Your task to perform on an android device: allow cookies in the chrome app Image 0: 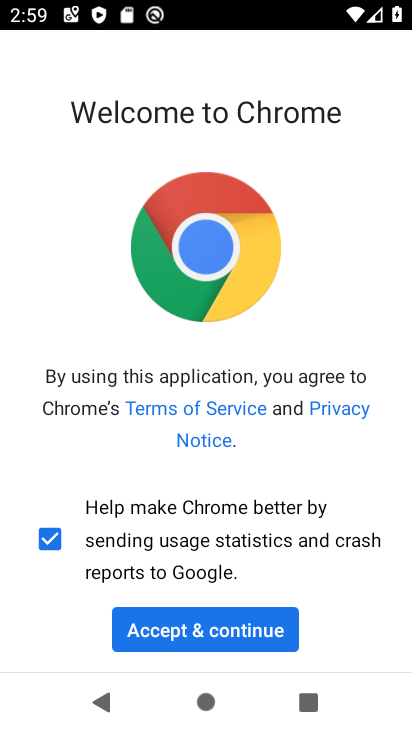
Step 0: press home button
Your task to perform on an android device: allow cookies in the chrome app Image 1: 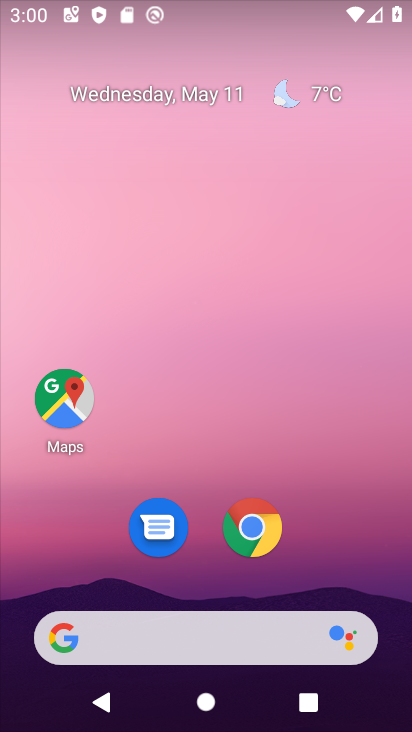
Step 1: click (269, 519)
Your task to perform on an android device: allow cookies in the chrome app Image 2: 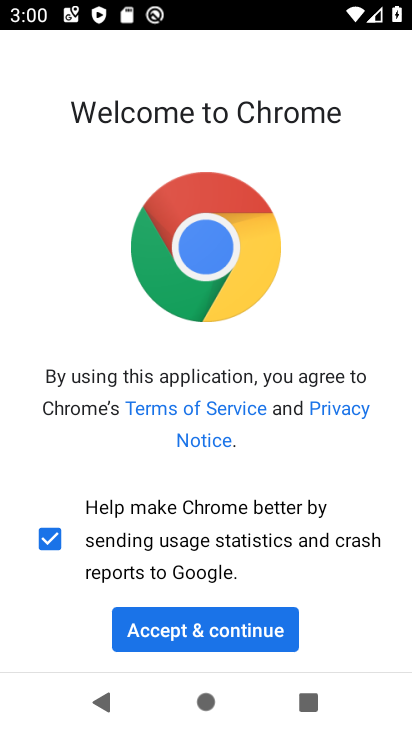
Step 2: click (215, 622)
Your task to perform on an android device: allow cookies in the chrome app Image 3: 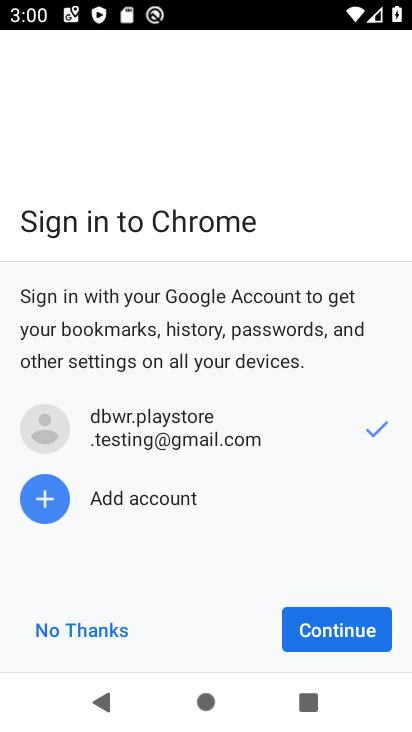
Step 3: click (103, 637)
Your task to perform on an android device: allow cookies in the chrome app Image 4: 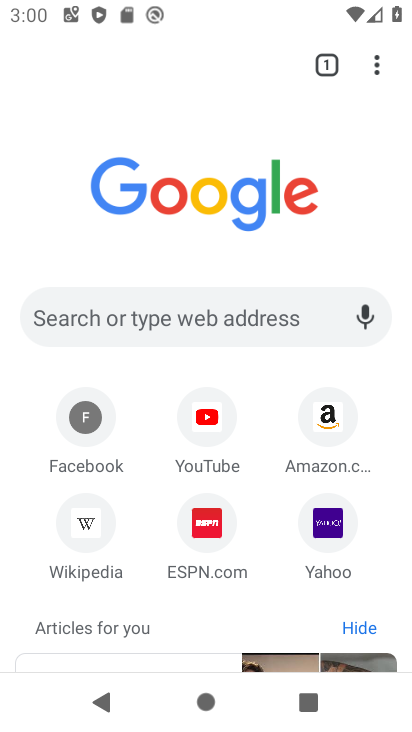
Step 4: drag from (380, 62) to (167, 548)
Your task to perform on an android device: allow cookies in the chrome app Image 5: 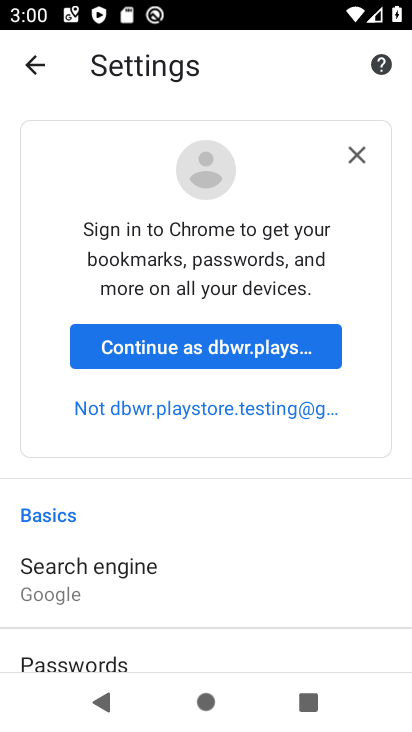
Step 5: drag from (201, 620) to (225, 221)
Your task to perform on an android device: allow cookies in the chrome app Image 6: 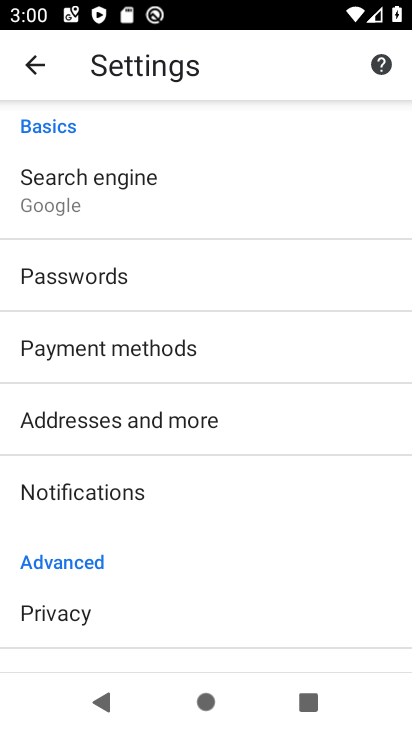
Step 6: drag from (203, 533) to (198, 185)
Your task to perform on an android device: allow cookies in the chrome app Image 7: 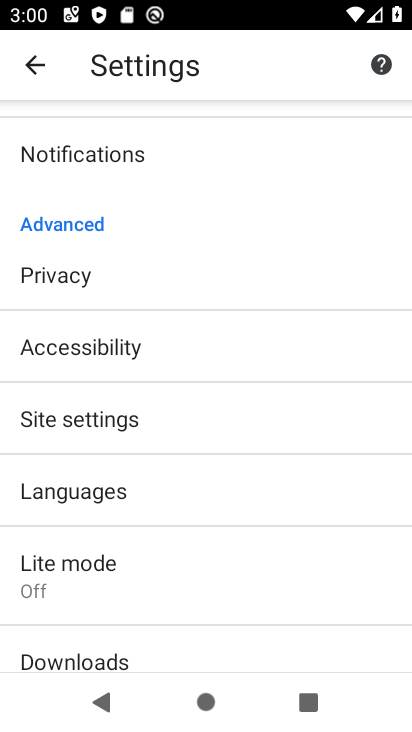
Step 7: click (78, 431)
Your task to perform on an android device: allow cookies in the chrome app Image 8: 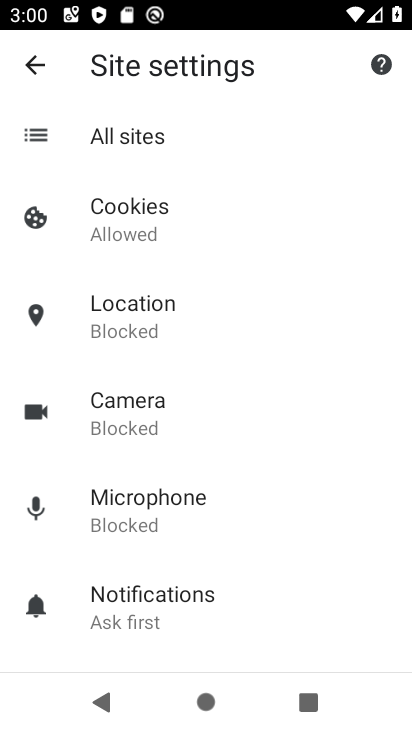
Step 8: click (110, 237)
Your task to perform on an android device: allow cookies in the chrome app Image 9: 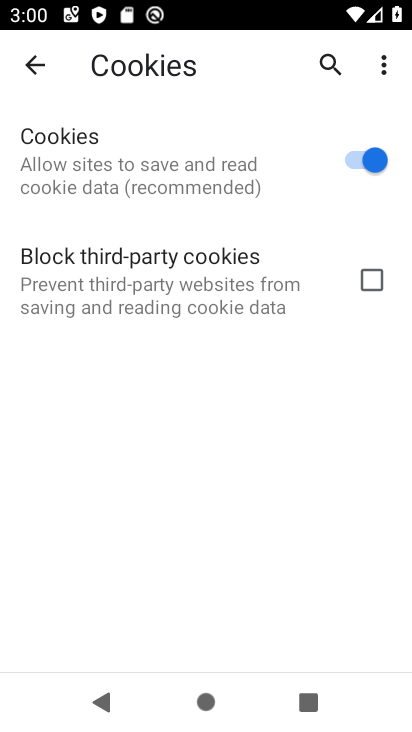
Step 9: task complete